Your task to perform on an android device: set the timer Image 0: 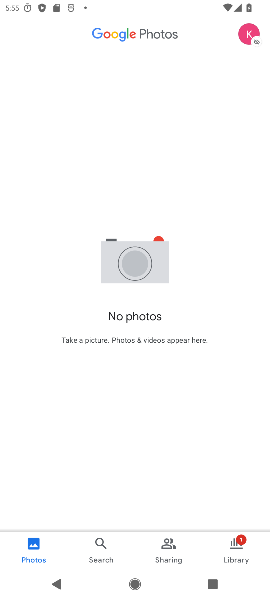
Step 0: press home button
Your task to perform on an android device: set the timer Image 1: 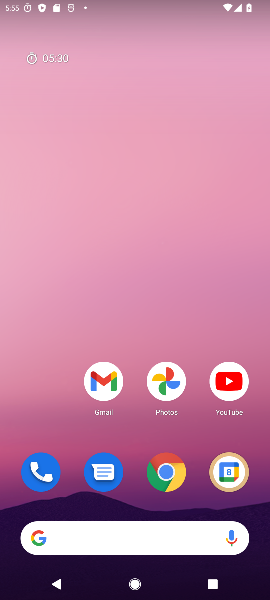
Step 1: drag from (155, 491) to (127, 21)
Your task to perform on an android device: set the timer Image 2: 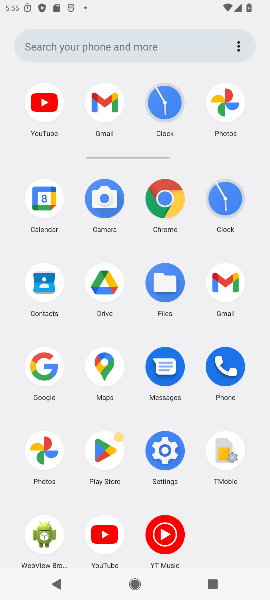
Step 2: click (171, 107)
Your task to perform on an android device: set the timer Image 3: 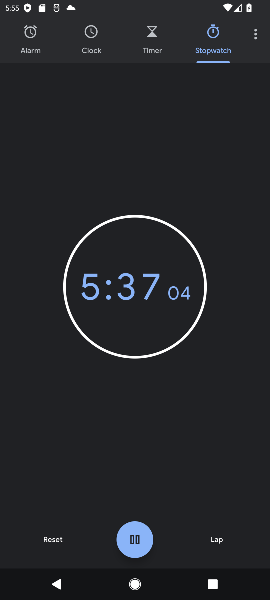
Step 3: click (146, 36)
Your task to perform on an android device: set the timer Image 4: 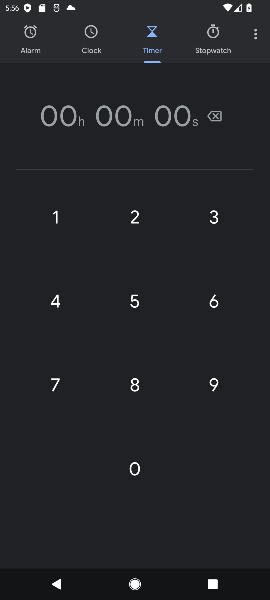
Step 4: click (58, 221)
Your task to perform on an android device: set the timer Image 5: 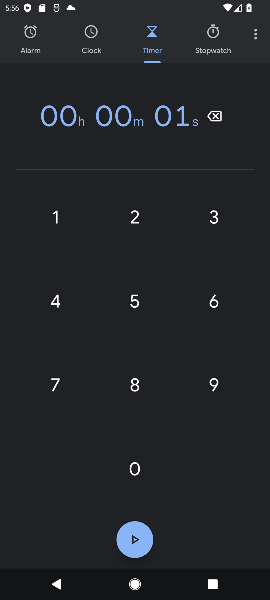
Step 5: click (135, 212)
Your task to perform on an android device: set the timer Image 6: 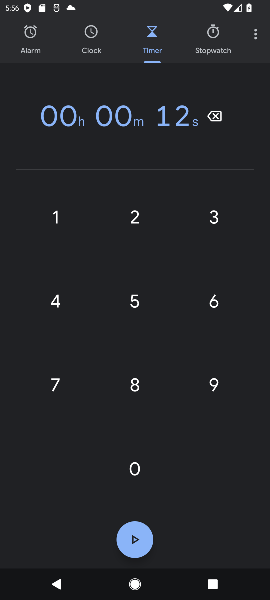
Step 6: click (57, 298)
Your task to perform on an android device: set the timer Image 7: 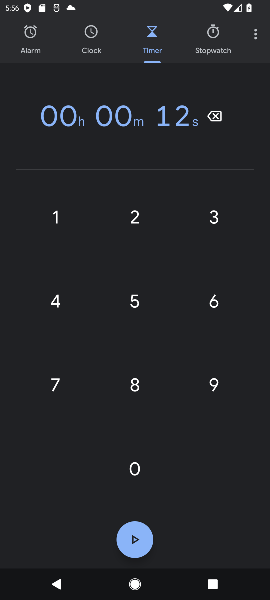
Step 7: click (58, 298)
Your task to perform on an android device: set the timer Image 8: 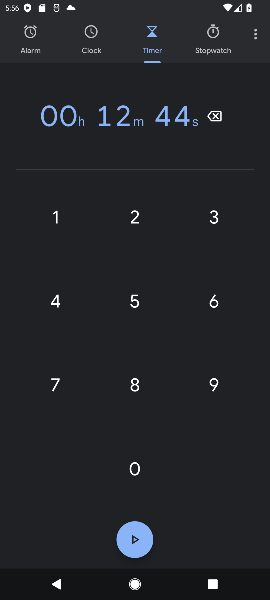
Step 8: click (210, 386)
Your task to perform on an android device: set the timer Image 9: 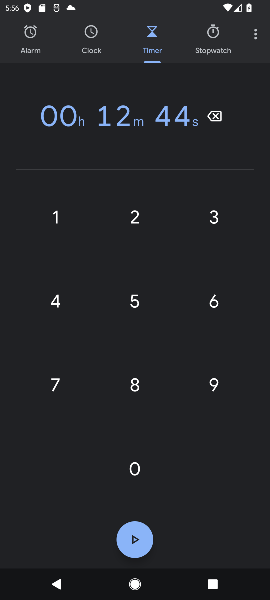
Step 9: click (210, 386)
Your task to perform on an android device: set the timer Image 10: 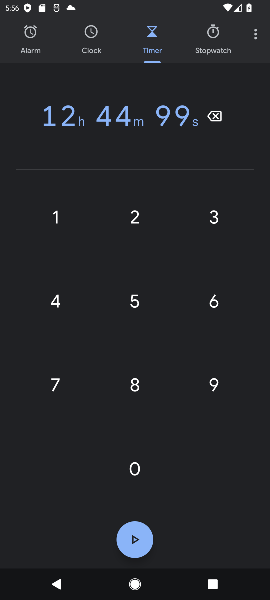
Step 10: click (131, 541)
Your task to perform on an android device: set the timer Image 11: 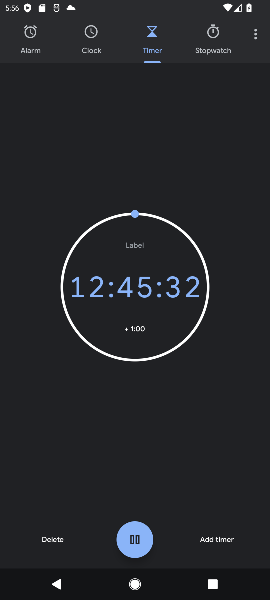
Step 11: task complete